Your task to perform on an android device: View the shopping cart on amazon. Image 0: 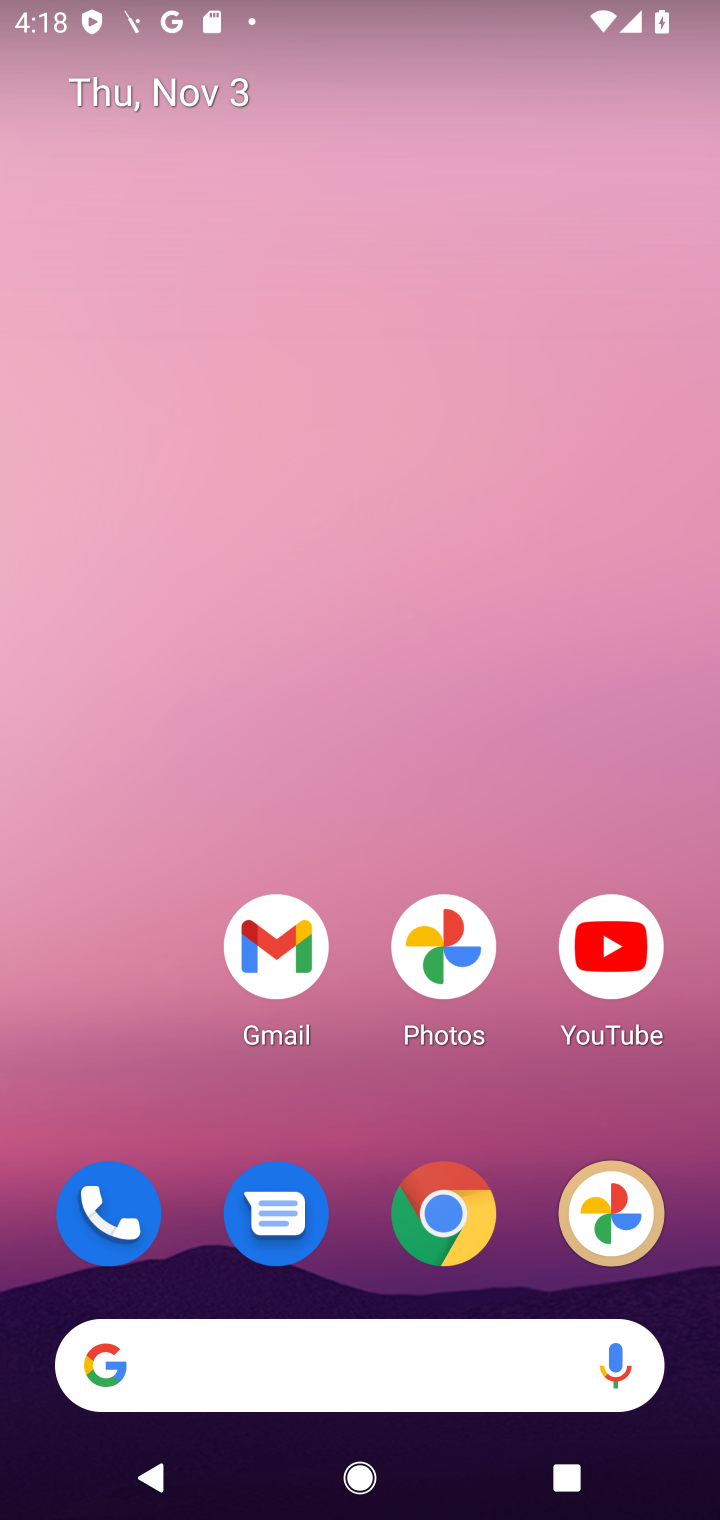
Step 0: click (424, 1227)
Your task to perform on an android device: View the shopping cart on amazon. Image 1: 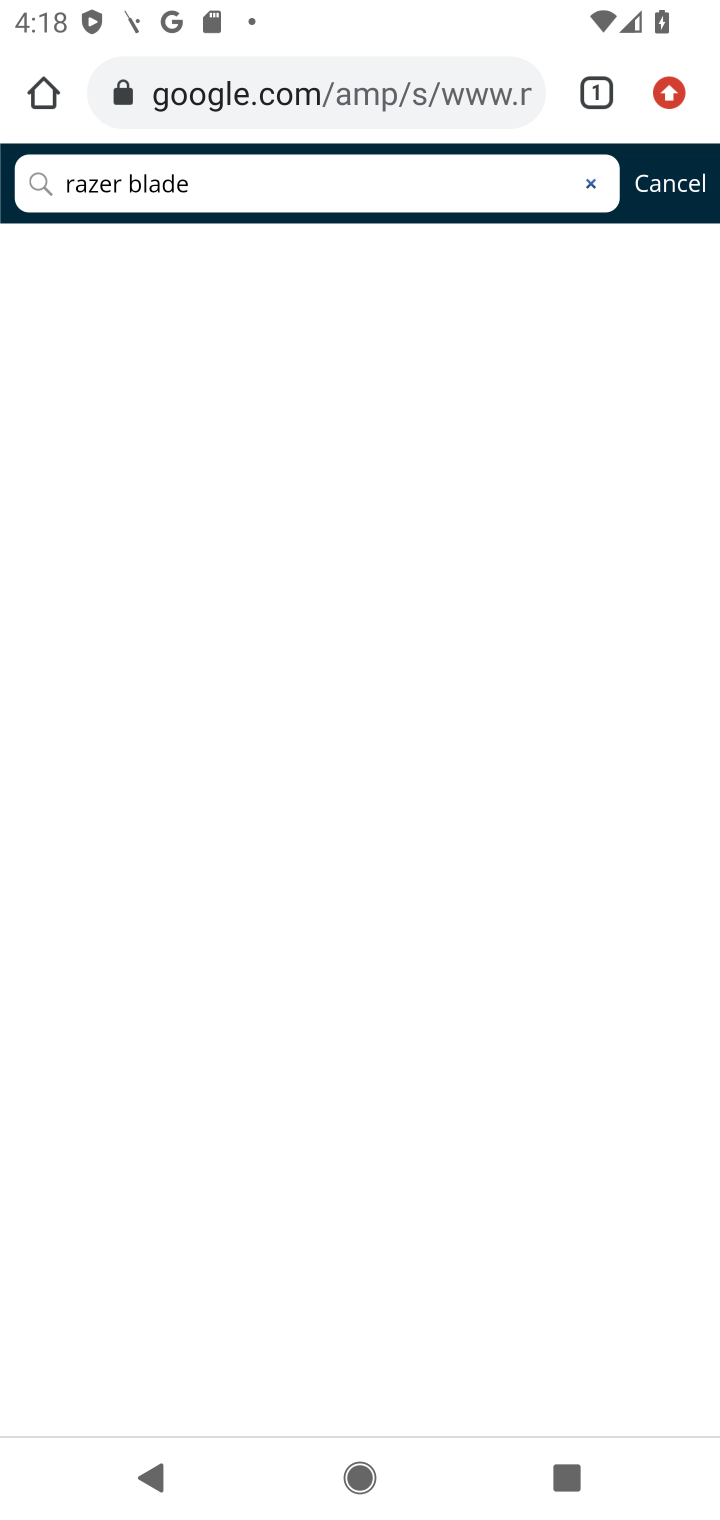
Step 1: click (334, 109)
Your task to perform on an android device: View the shopping cart on amazon. Image 2: 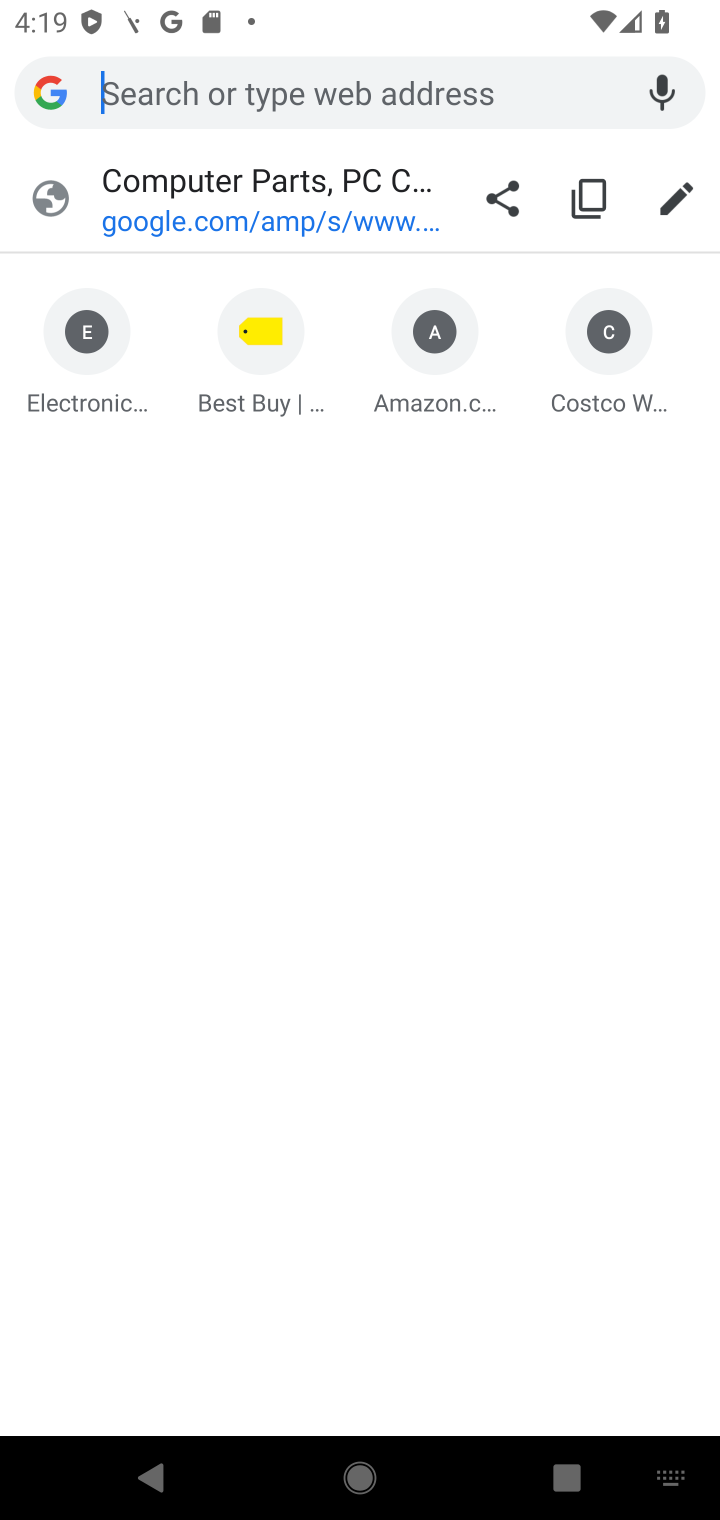
Step 2: click (432, 352)
Your task to perform on an android device: View the shopping cart on amazon. Image 3: 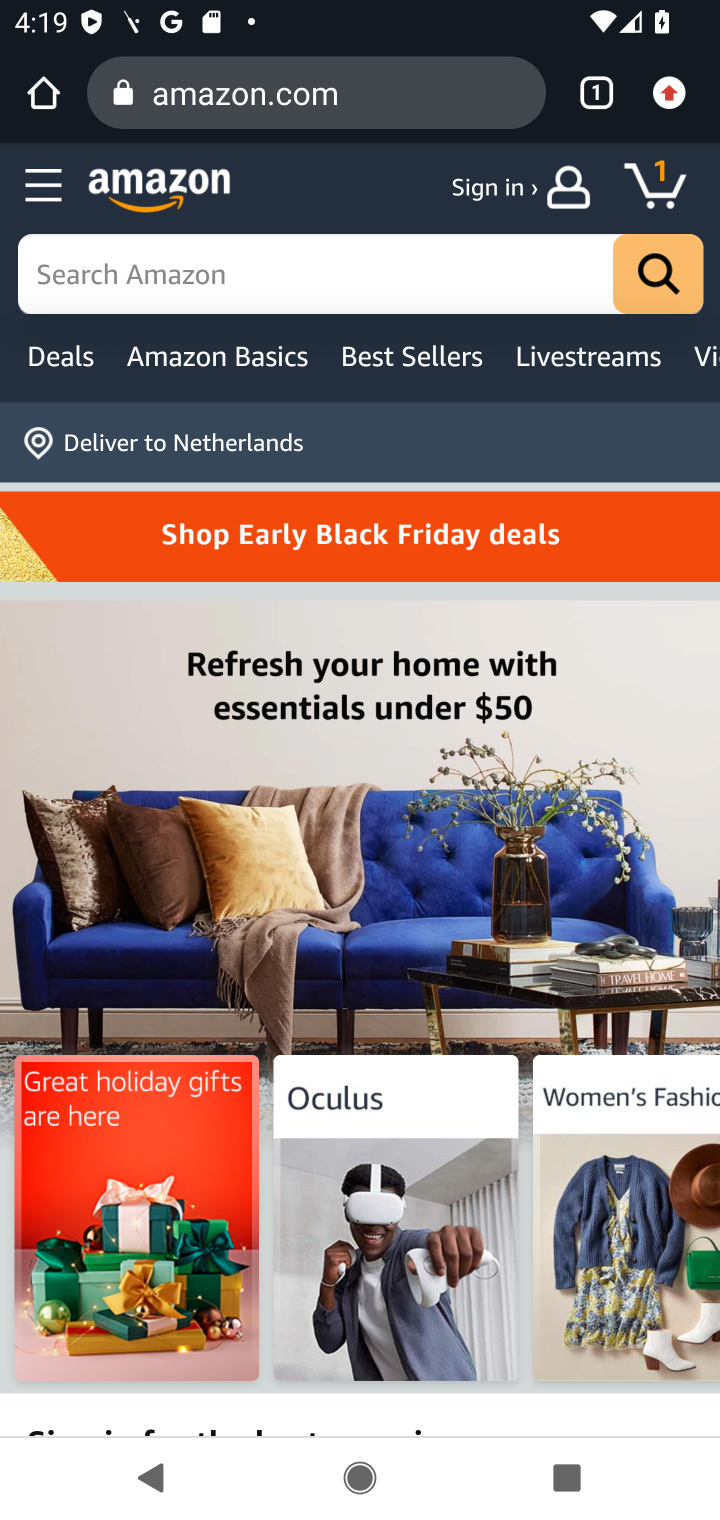
Step 3: click (654, 184)
Your task to perform on an android device: View the shopping cart on amazon. Image 4: 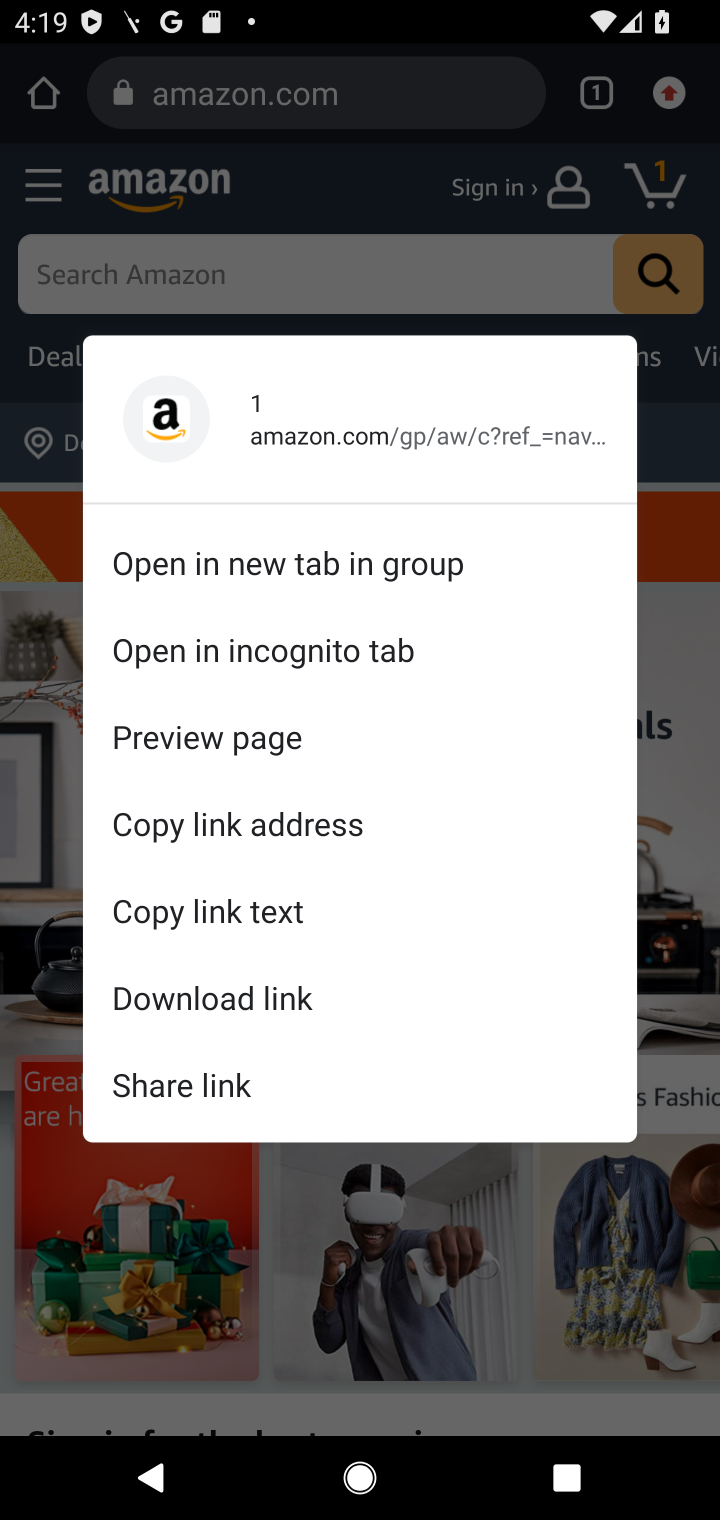
Step 4: click (658, 178)
Your task to perform on an android device: View the shopping cart on amazon. Image 5: 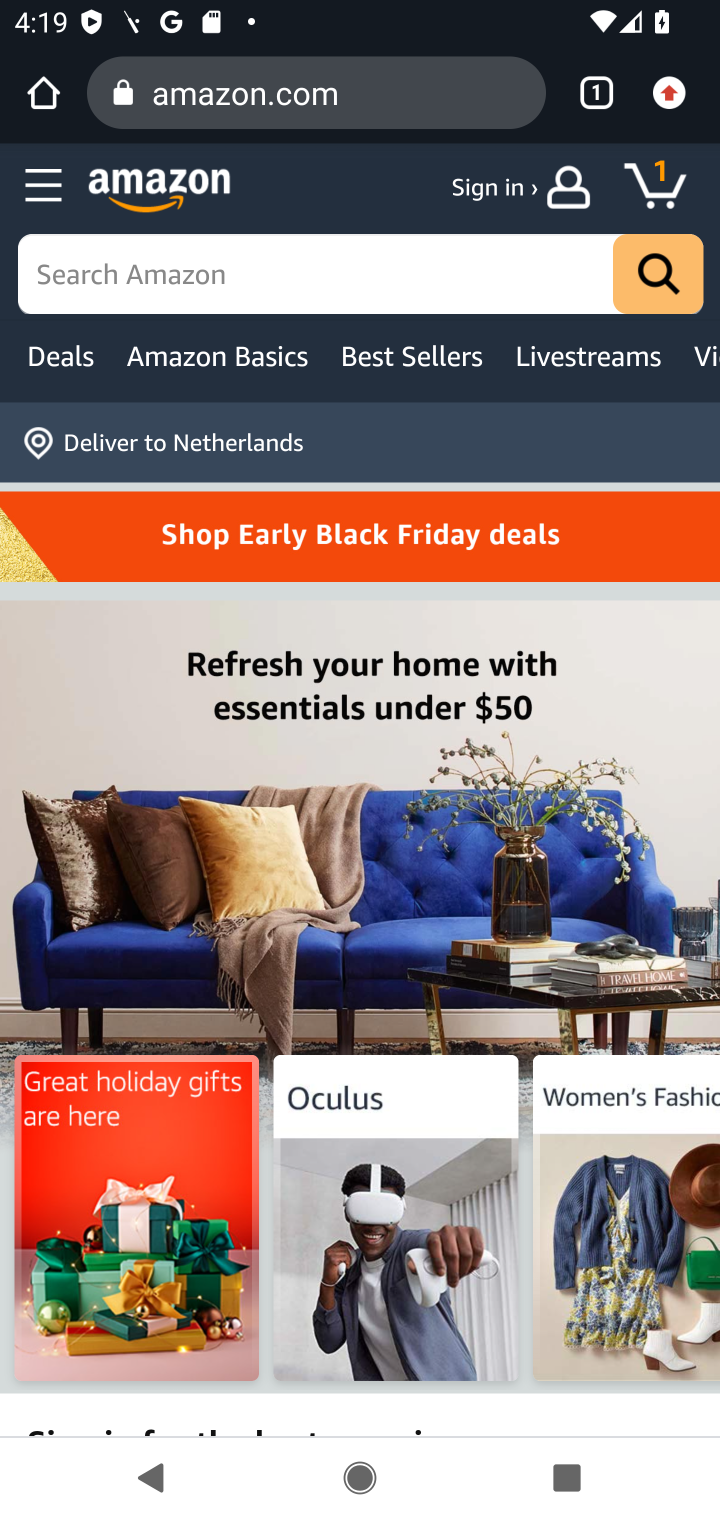
Step 5: click (667, 189)
Your task to perform on an android device: View the shopping cart on amazon. Image 6: 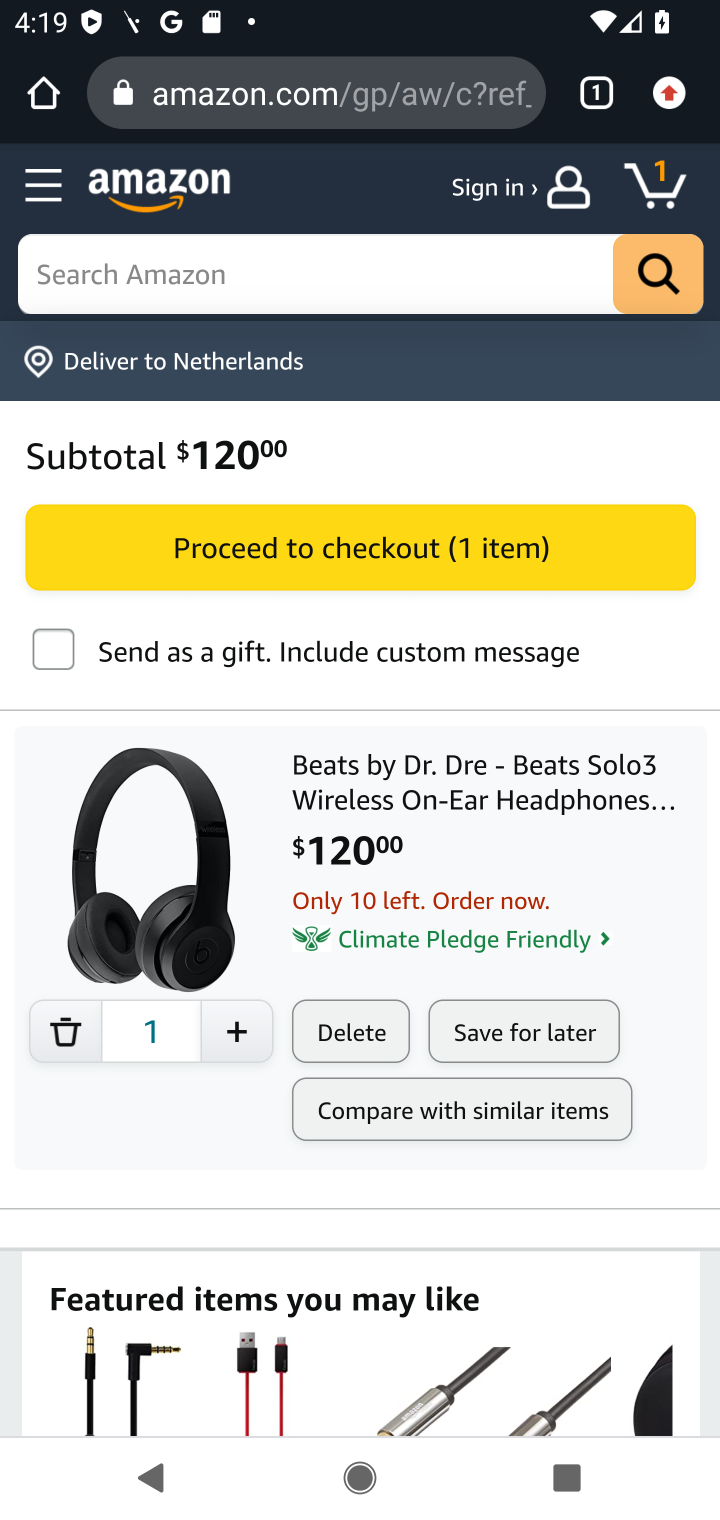
Step 6: task complete